Your task to perform on an android device: Go to Google Image 0: 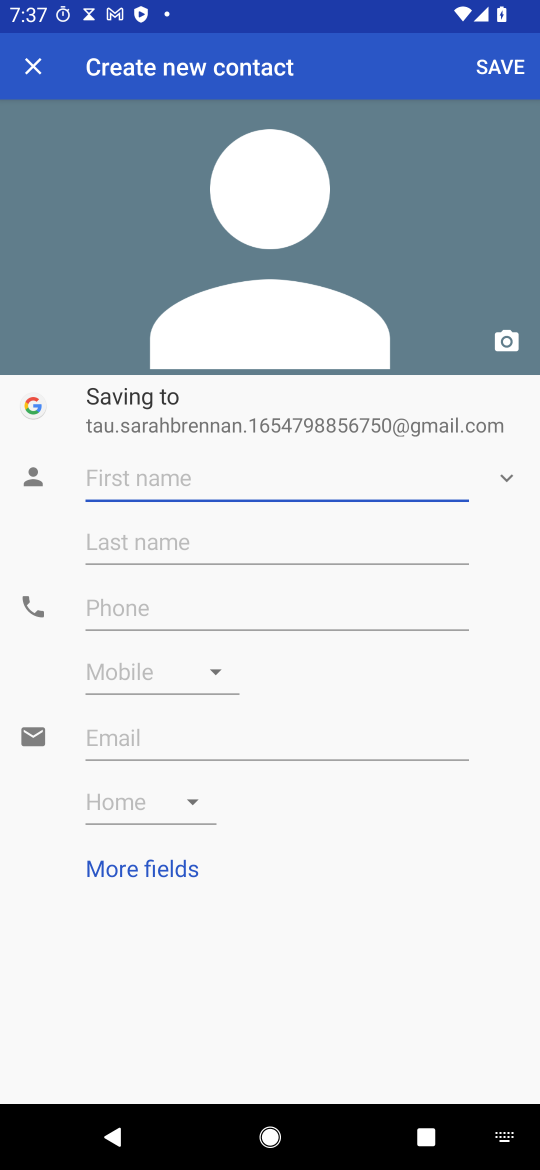
Step 0: press home button
Your task to perform on an android device: Go to Google Image 1: 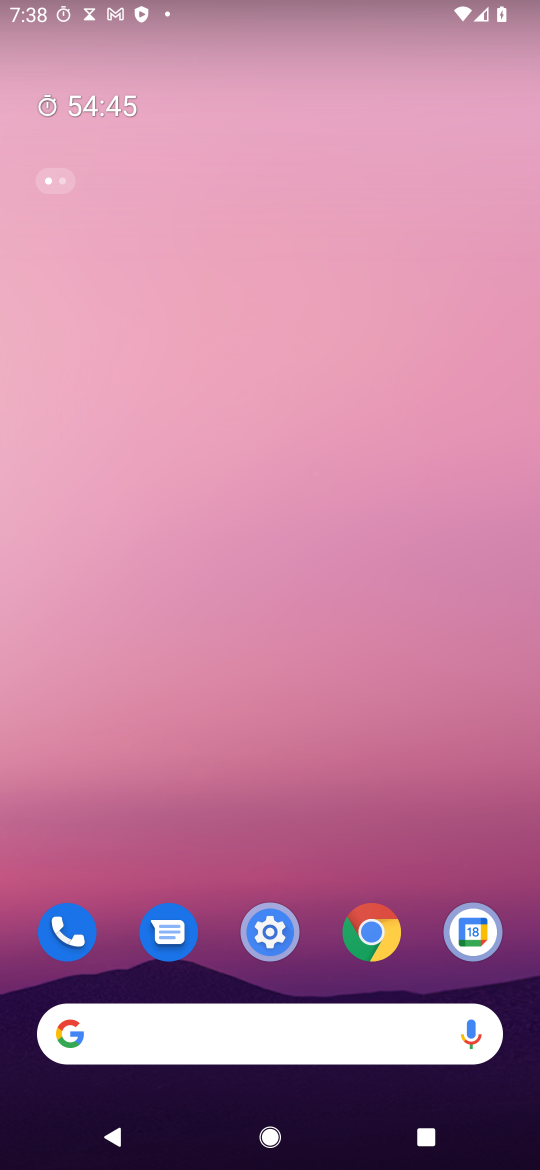
Step 1: drag from (381, 870) to (434, 119)
Your task to perform on an android device: Go to Google Image 2: 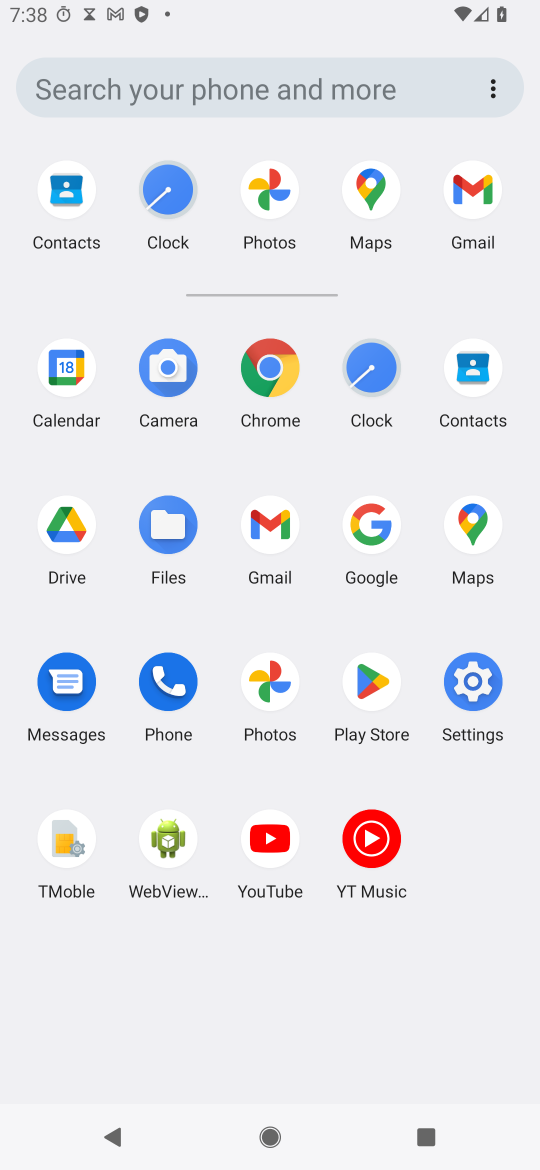
Step 2: click (374, 524)
Your task to perform on an android device: Go to Google Image 3: 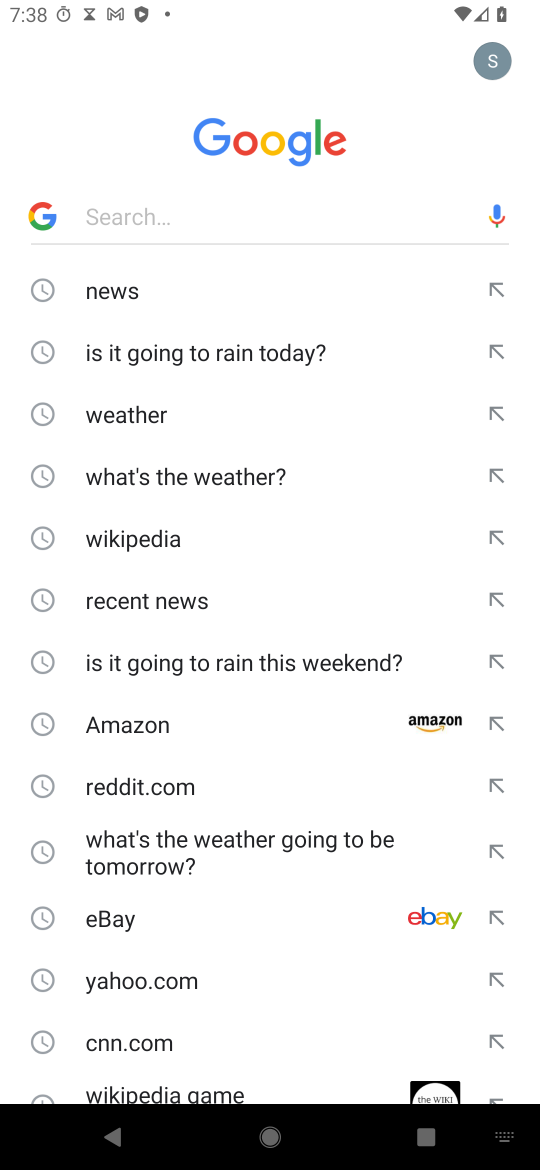
Step 3: task complete